Your task to perform on an android device: create a new album in the google photos Image 0: 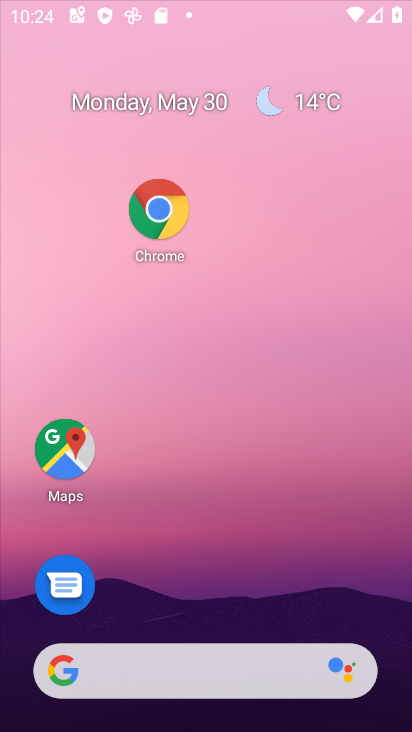
Step 0: drag from (232, 610) to (292, 94)
Your task to perform on an android device: create a new album in the google photos Image 1: 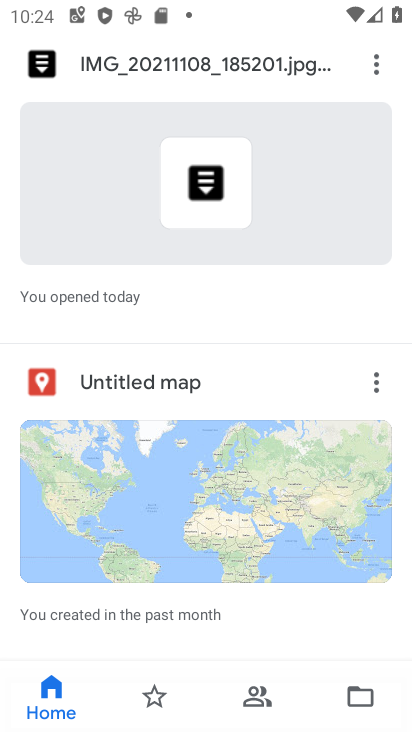
Step 1: press home button
Your task to perform on an android device: create a new album in the google photos Image 2: 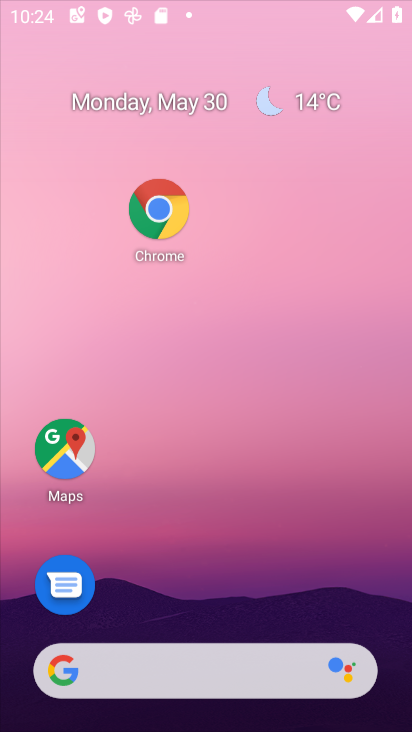
Step 2: drag from (159, 563) to (279, 137)
Your task to perform on an android device: create a new album in the google photos Image 3: 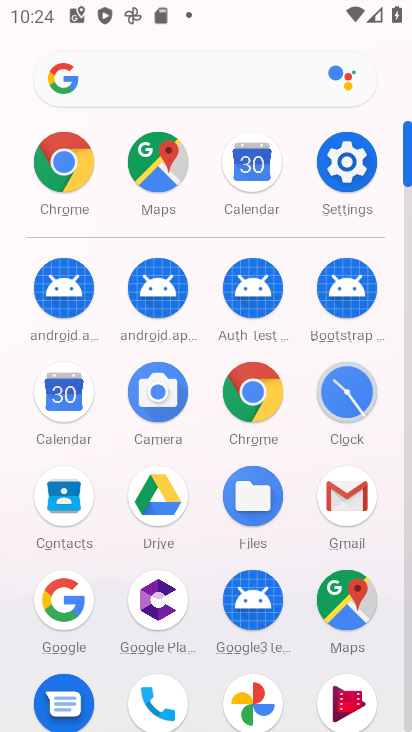
Step 3: click (257, 696)
Your task to perform on an android device: create a new album in the google photos Image 4: 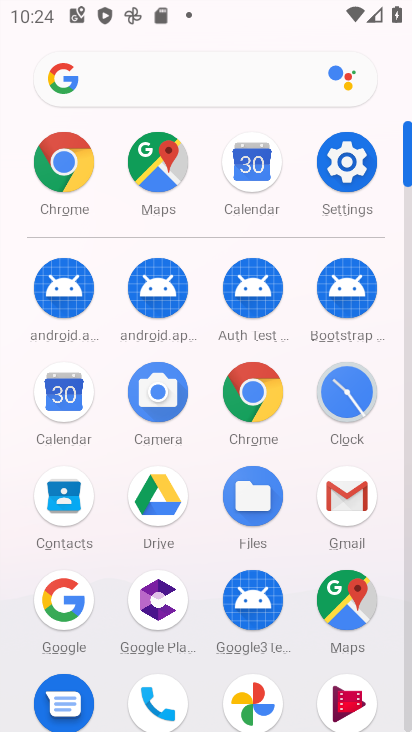
Step 4: click (257, 696)
Your task to perform on an android device: create a new album in the google photos Image 5: 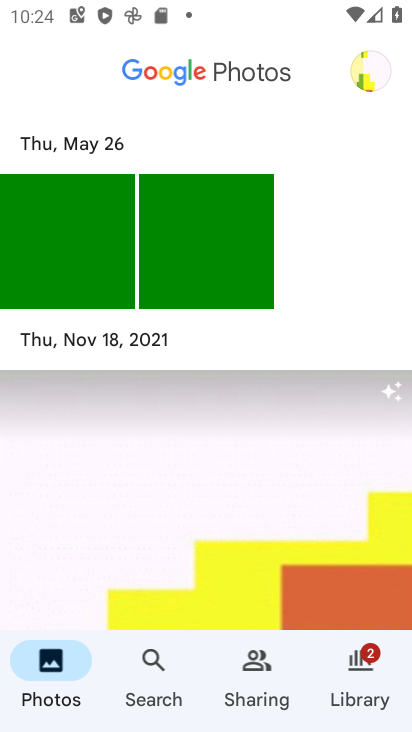
Step 5: drag from (238, 566) to (303, 257)
Your task to perform on an android device: create a new album in the google photos Image 6: 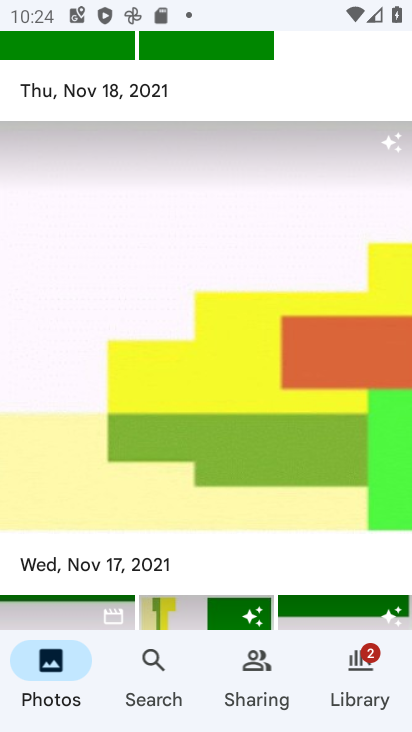
Step 6: drag from (223, 489) to (239, 730)
Your task to perform on an android device: create a new album in the google photos Image 7: 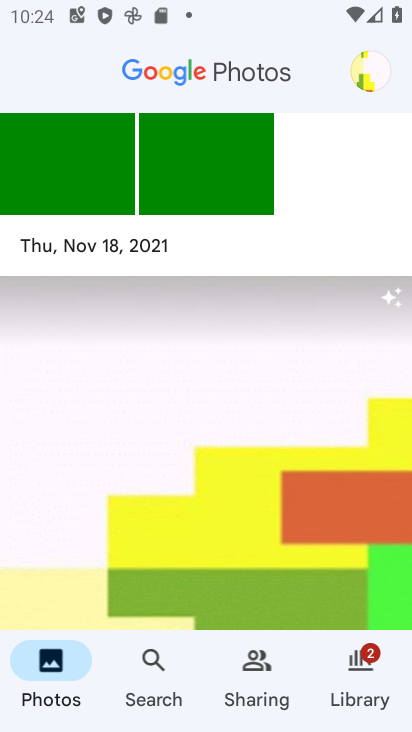
Step 7: drag from (224, 527) to (297, 19)
Your task to perform on an android device: create a new album in the google photos Image 8: 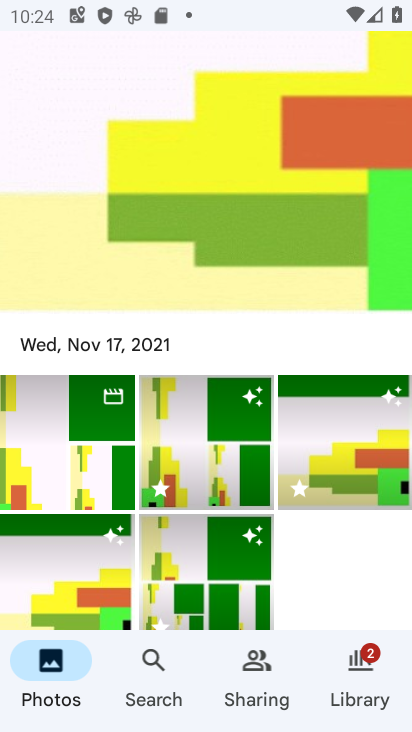
Step 8: click (364, 655)
Your task to perform on an android device: create a new album in the google photos Image 9: 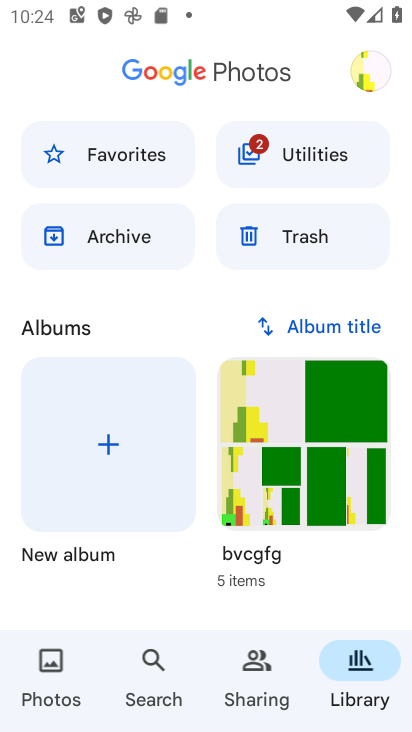
Step 9: click (86, 445)
Your task to perform on an android device: create a new album in the google photos Image 10: 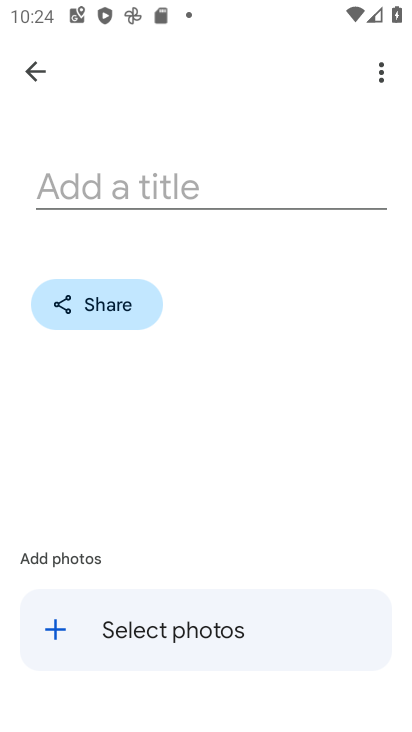
Step 10: click (155, 194)
Your task to perform on an android device: create a new album in the google photos Image 11: 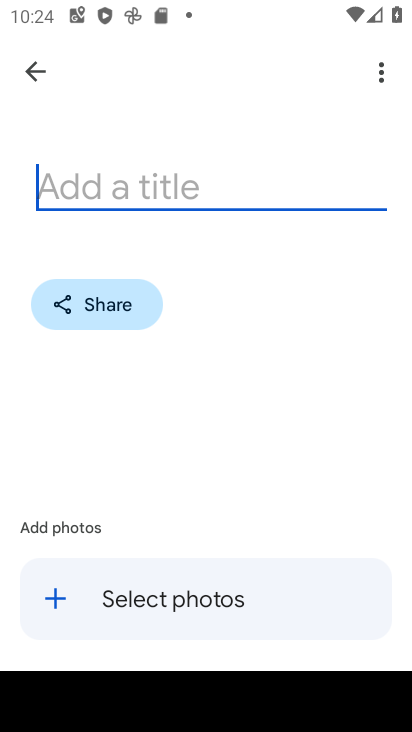
Step 11: type "mhvk"
Your task to perform on an android device: create a new album in the google photos Image 12: 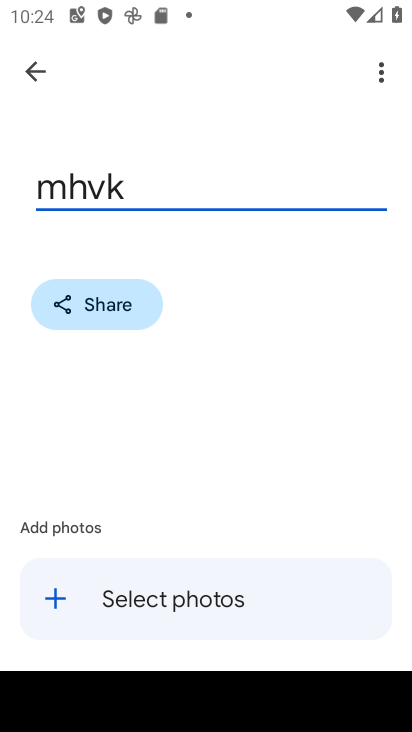
Step 12: click (41, 595)
Your task to perform on an android device: create a new album in the google photos Image 13: 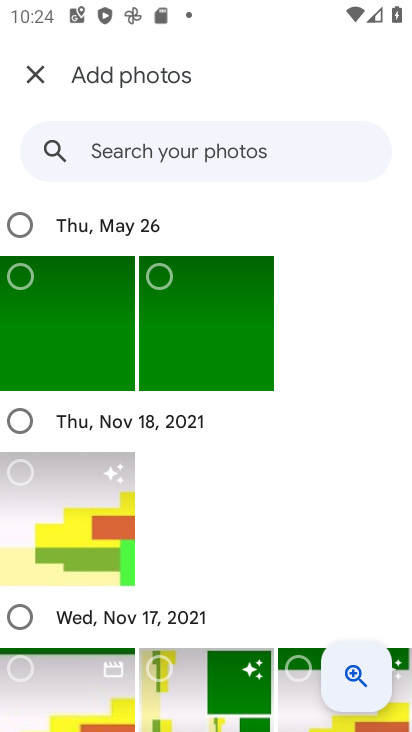
Step 13: click (75, 528)
Your task to perform on an android device: create a new album in the google photos Image 14: 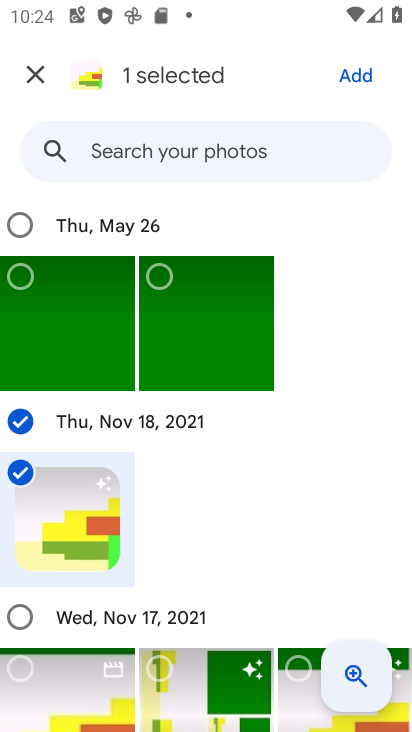
Step 14: drag from (275, 511) to (335, 122)
Your task to perform on an android device: create a new album in the google photos Image 15: 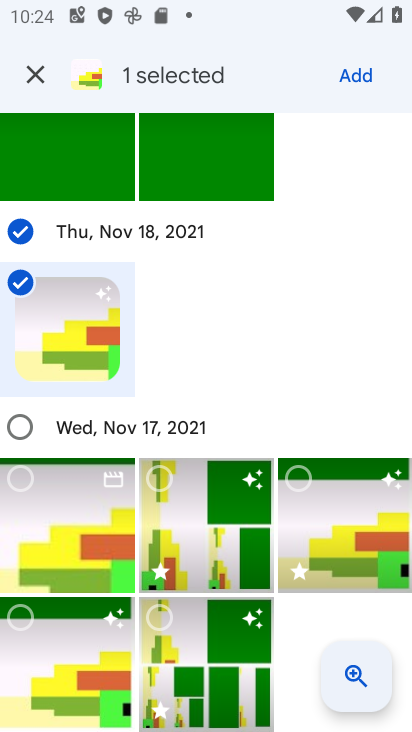
Step 15: click (35, 527)
Your task to perform on an android device: create a new album in the google photos Image 16: 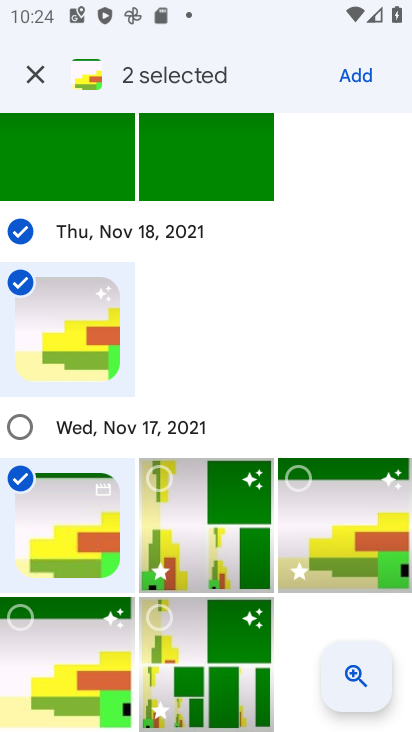
Step 16: click (147, 536)
Your task to perform on an android device: create a new album in the google photos Image 17: 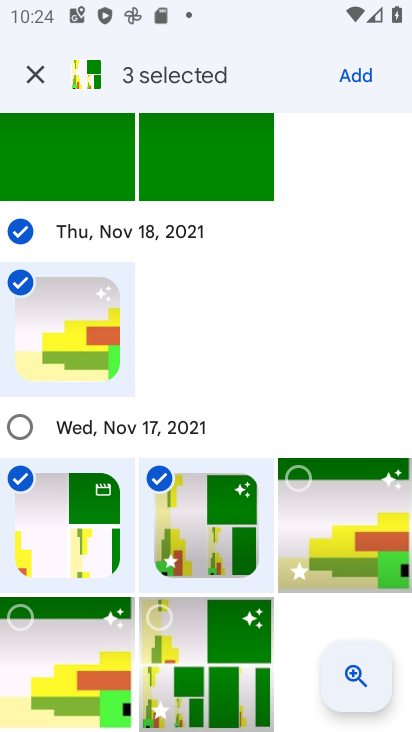
Step 17: click (350, 73)
Your task to perform on an android device: create a new album in the google photos Image 18: 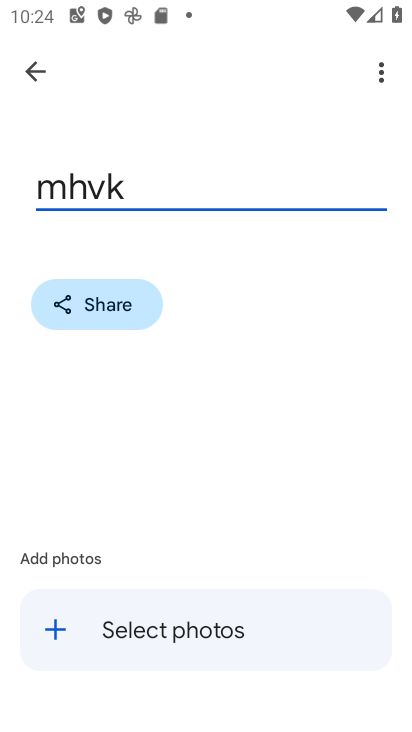
Step 18: task complete